Your task to perform on an android device: Check the weather Image 0: 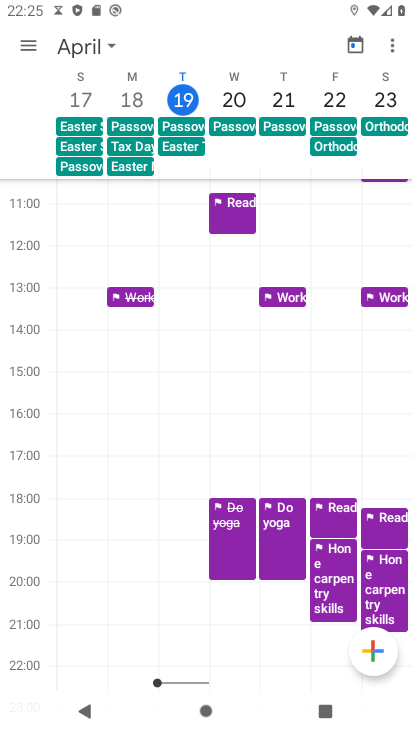
Step 0: press home button
Your task to perform on an android device: Check the weather Image 1: 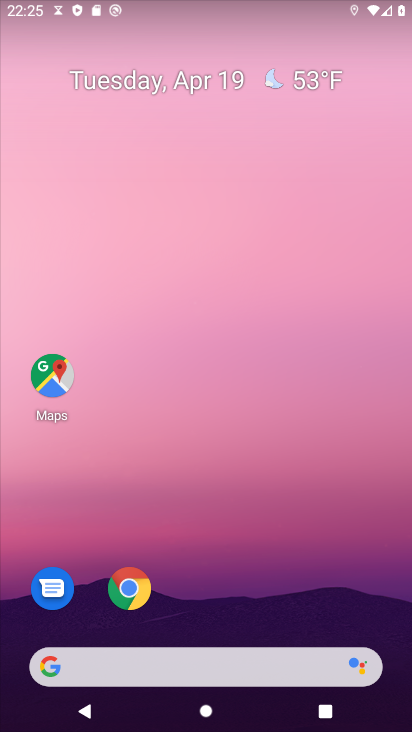
Step 1: drag from (208, 602) to (292, 46)
Your task to perform on an android device: Check the weather Image 2: 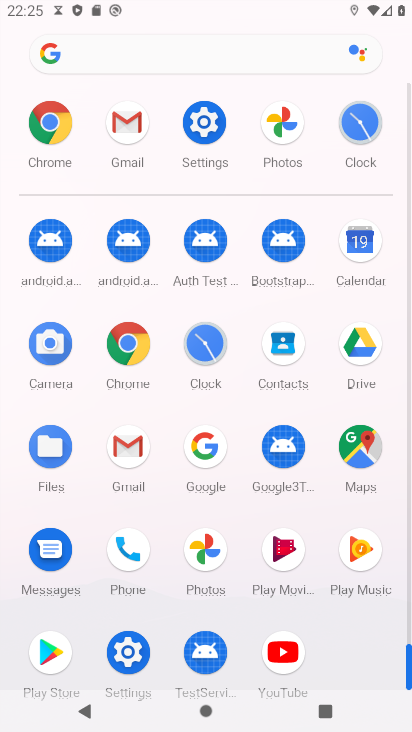
Step 2: click (207, 445)
Your task to perform on an android device: Check the weather Image 3: 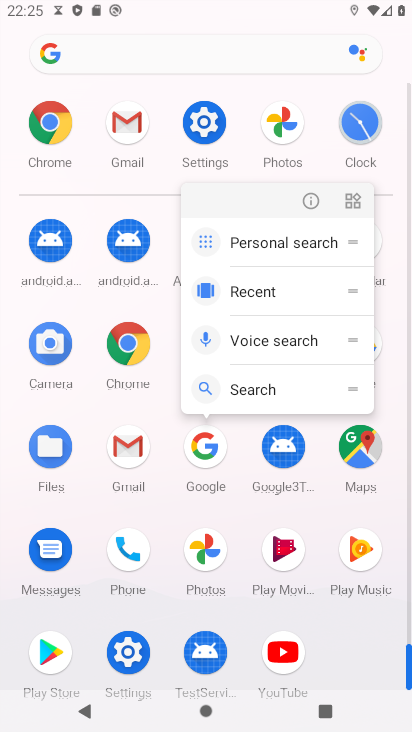
Step 3: click (207, 445)
Your task to perform on an android device: Check the weather Image 4: 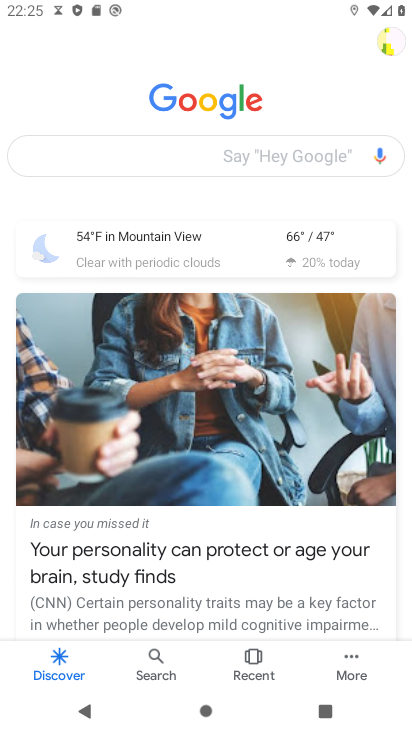
Step 4: click (301, 232)
Your task to perform on an android device: Check the weather Image 5: 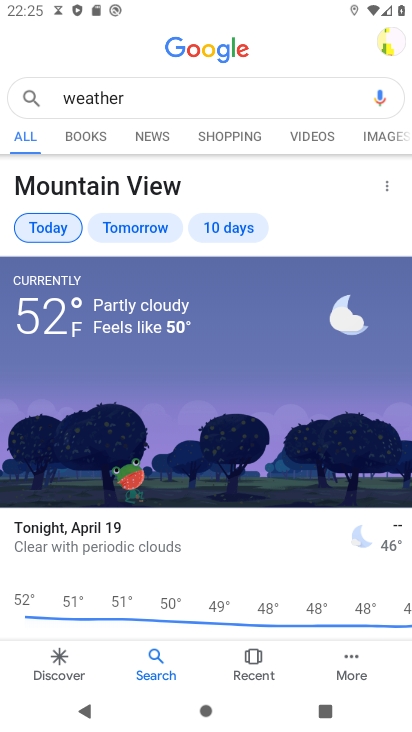
Step 5: task complete